Your task to perform on an android device: Open the calendar app, open the side menu, and click the "Day" option Image 0: 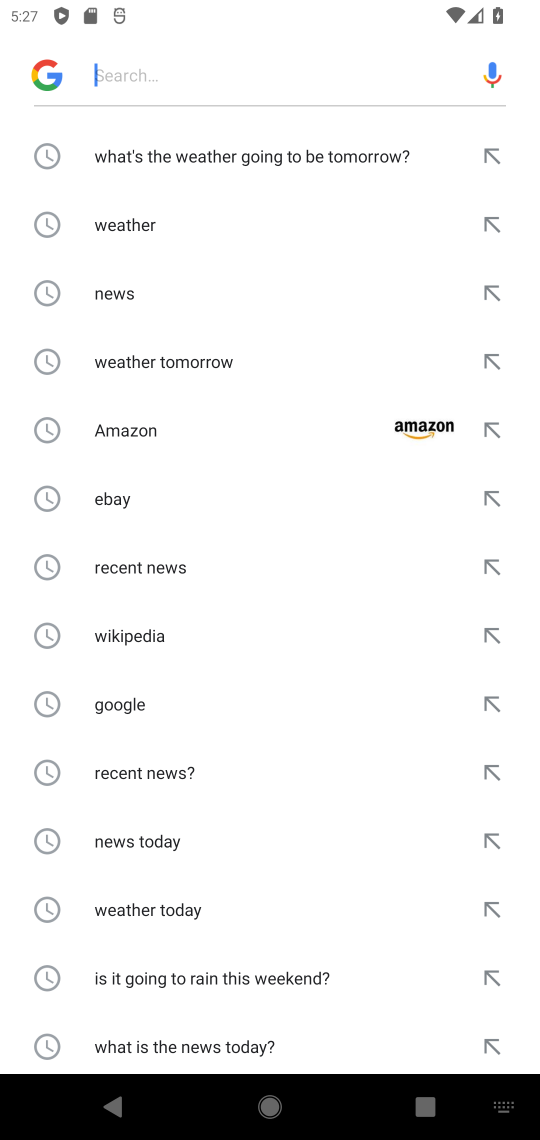
Step 0: press home button
Your task to perform on an android device: Open the calendar app, open the side menu, and click the "Day" option Image 1: 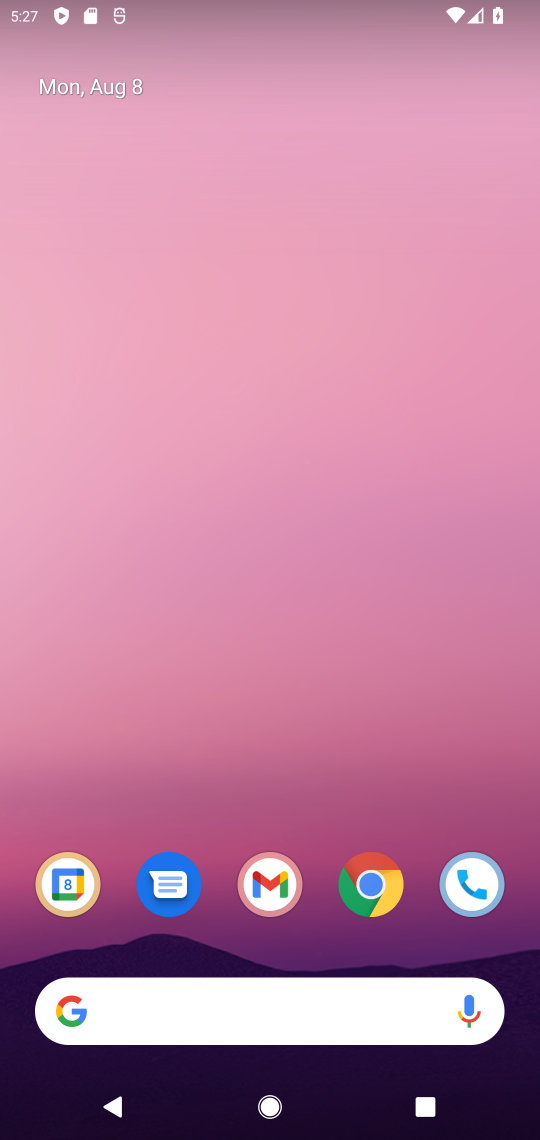
Step 1: click (76, 895)
Your task to perform on an android device: Open the calendar app, open the side menu, and click the "Day" option Image 2: 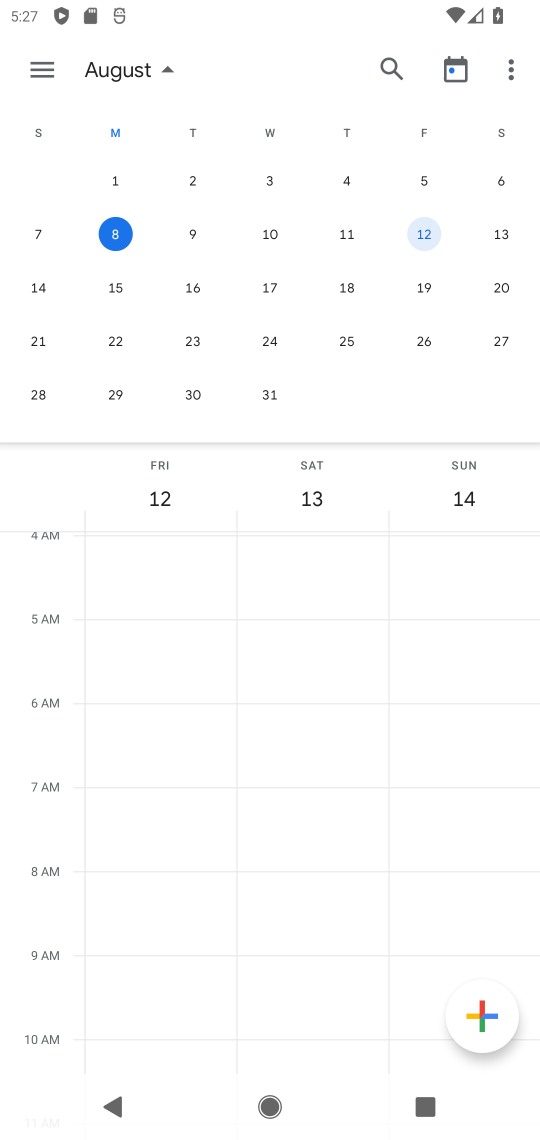
Step 2: click (41, 77)
Your task to perform on an android device: Open the calendar app, open the side menu, and click the "Day" option Image 3: 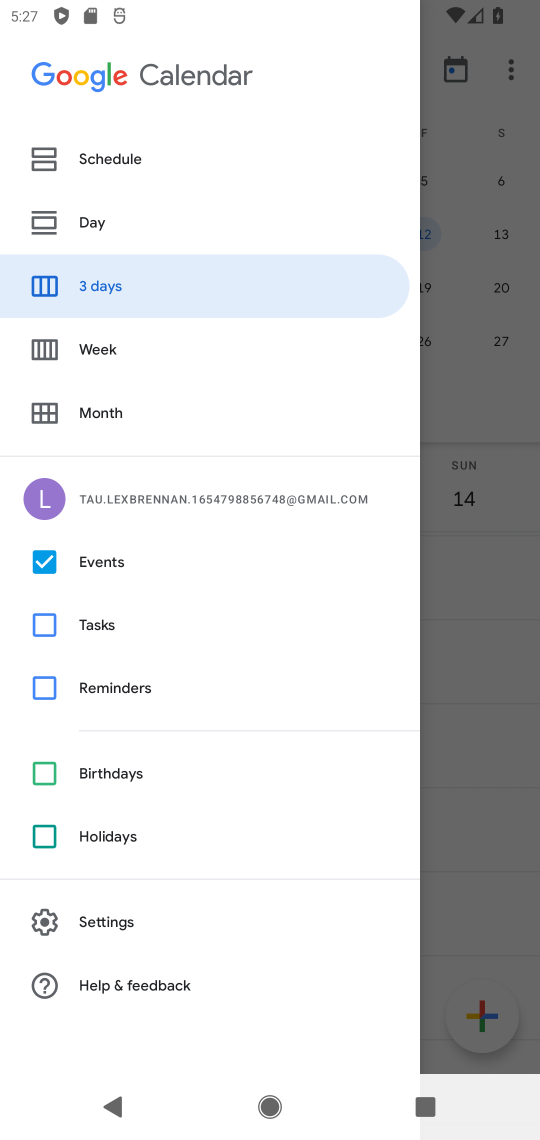
Step 3: click (84, 236)
Your task to perform on an android device: Open the calendar app, open the side menu, and click the "Day" option Image 4: 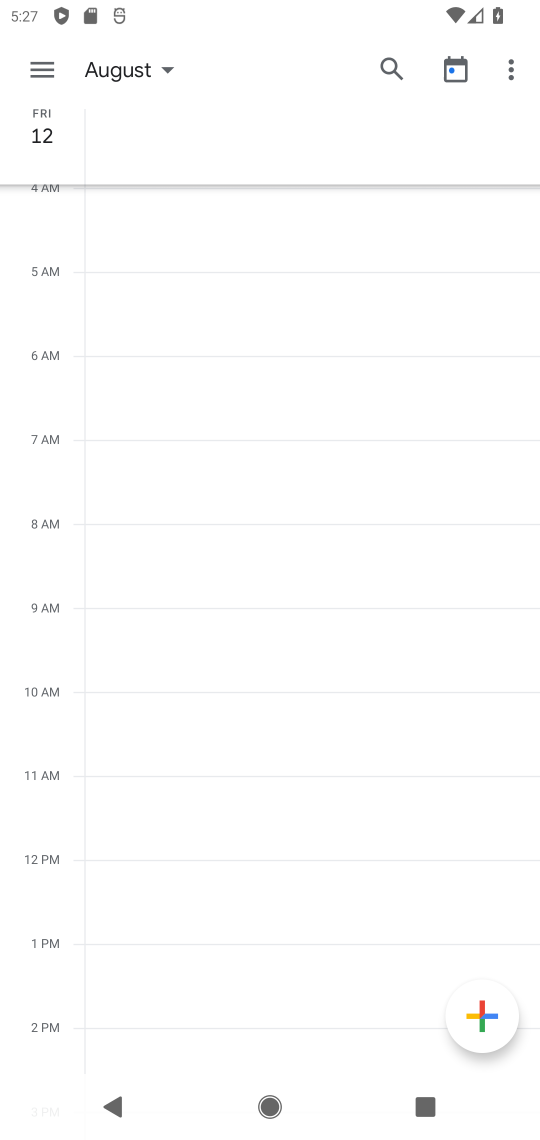
Step 4: task complete